Your task to perform on an android device: Open wifi settings Image 0: 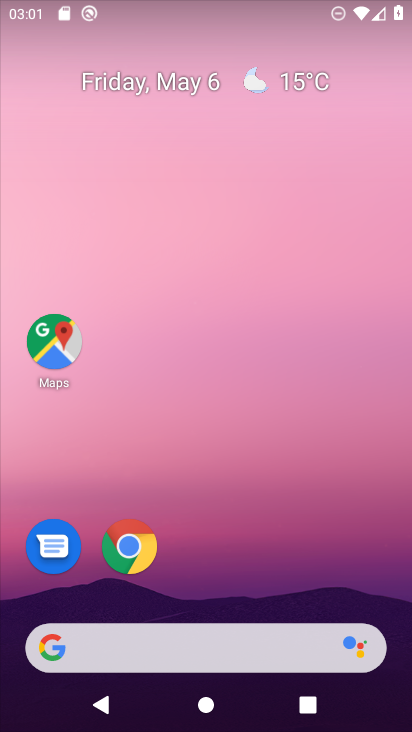
Step 0: drag from (261, 548) to (255, 134)
Your task to perform on an android device: Open wifi settings Image 1: 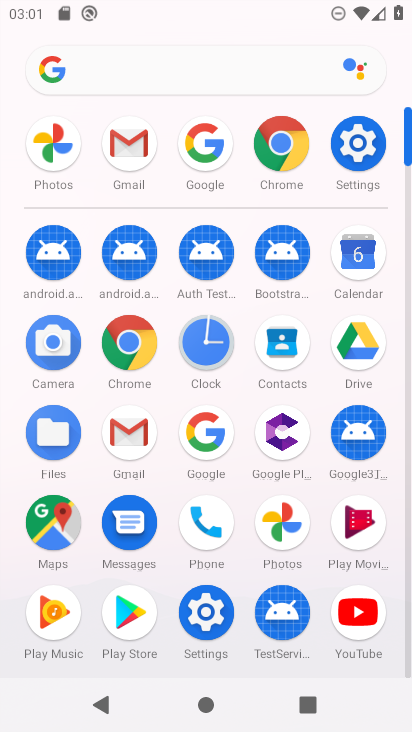
Step 1: click (351, 135)
Your task to perform on an android device: Open wifi settings Image 2: 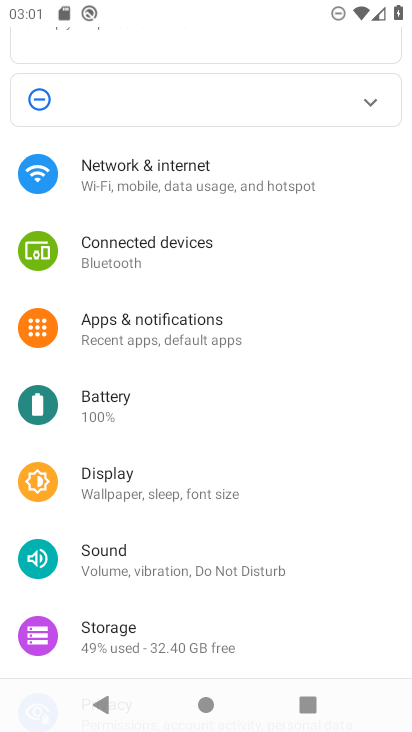
Step 2: click (217, 183)
Your task to perform on an android device: Open wifi settings Image 3: 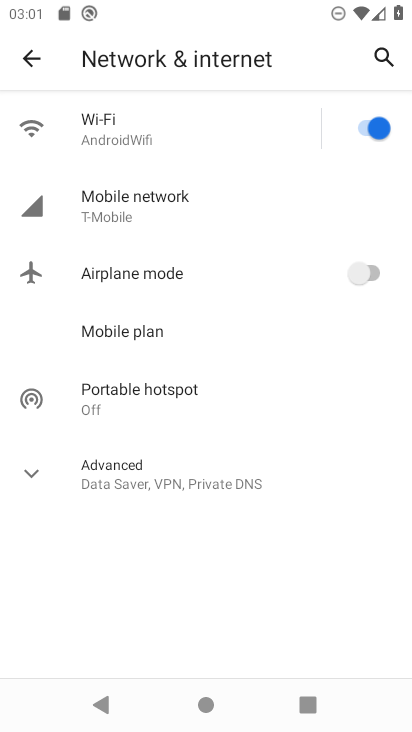
Step 3: click (86, 129)
Your task to perform on an android device: Open wifi settings Image 4: 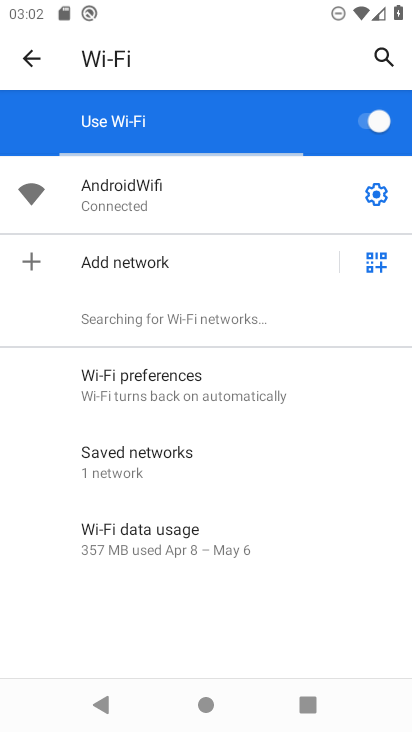
Step 4: task complete